Your task to perform on an android device: Open Android settings Image 0: 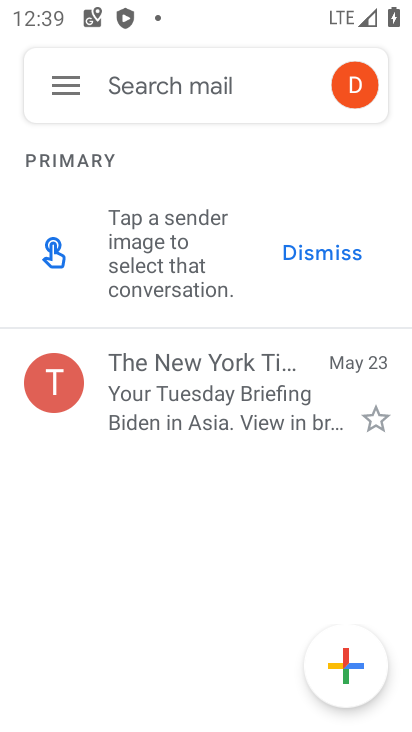
Step 0: press home button
Your task to perform on an android device: Open Android settings Image 1: 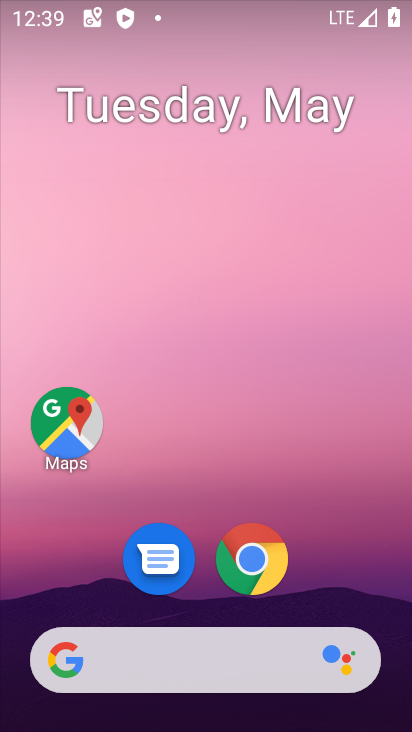
Step 1: drag from (361, 577) to (334, 198)
Your task to perform on an android device: Open Android settings Image 2: 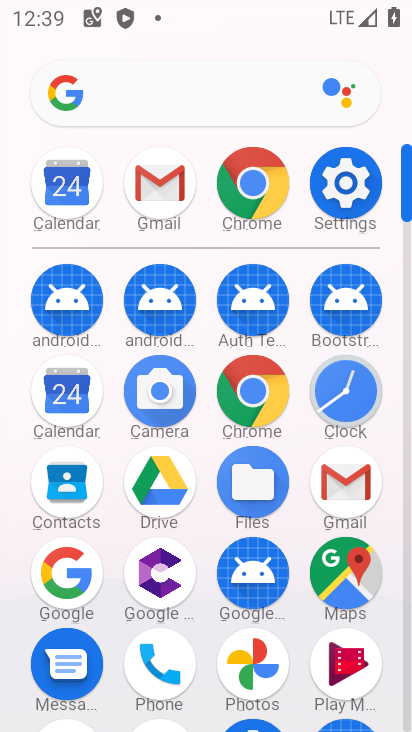
Step 2: click (346, 221)
Your task to perform on an android device: Open Android settings Image 3: 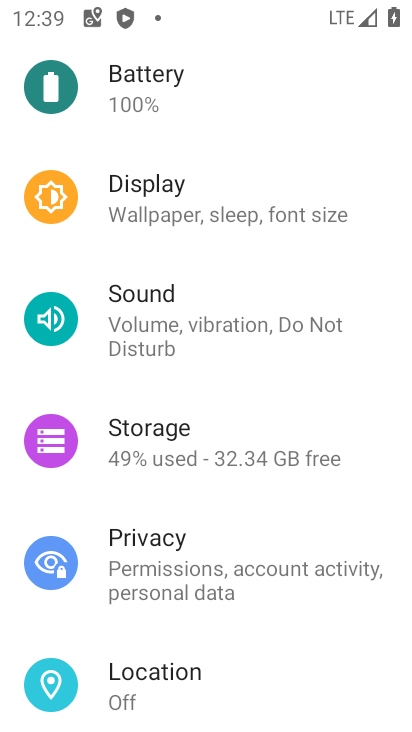
Step 3: task complete